Your task to perform on an android device: Clear the shopping cart on costco.com. Add jbl flip 4 to the cart on costco.com, then select checkout. Image 0: 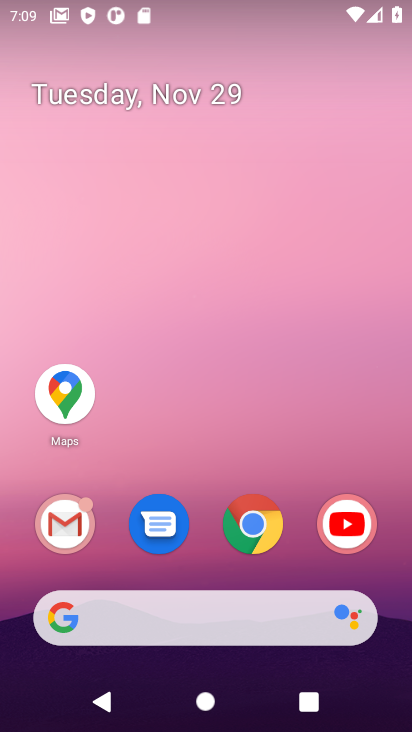
Step 0: click (252, 534)
Your task to perform on an android device: Clear the shopping cart on costco.com. Add jbl flip 4 to the cart on costco.com, then select checkout. Image 1: 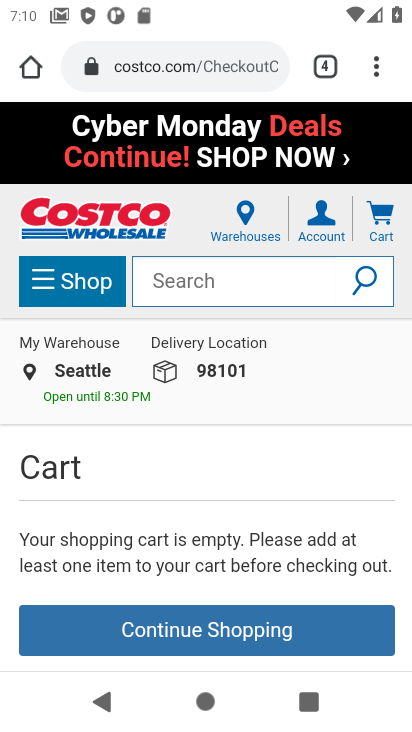
Step 1: click (185, 275)
Your task to perform on an android device: Clear the shopping cart on costco.com. Add jbl flip 4 to the cart on costco.com, then select checkout. Image 2: 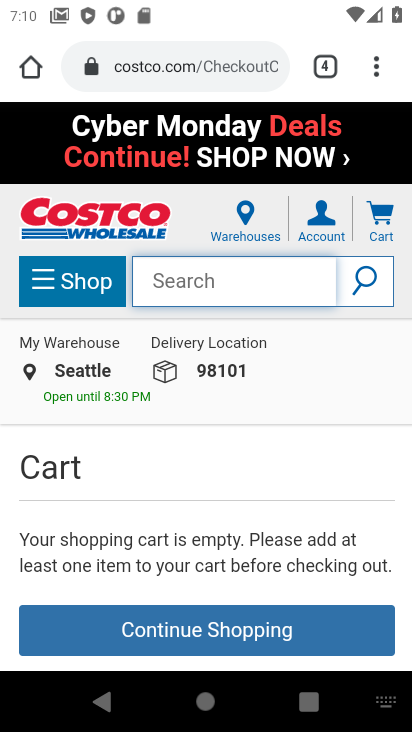
Step 2: type " jbl flip 4"
Your task to perform on an android device: Clear the shopping cart on costco.com. Add jbl flip 4 to the cart on costco.com, then select checkout. Image 3: 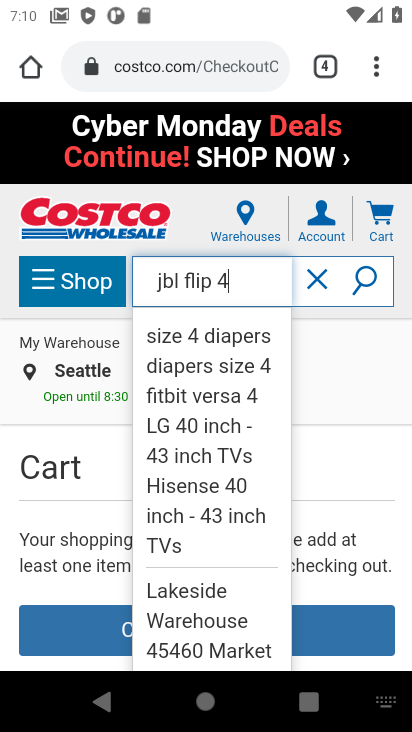
Step 3: click (358, 277)
Your task to perform on an android device: Clear the shopping cart on costco.com. Add jbl flip 4 to the cart on costco.com, then select checkout. Image 4: 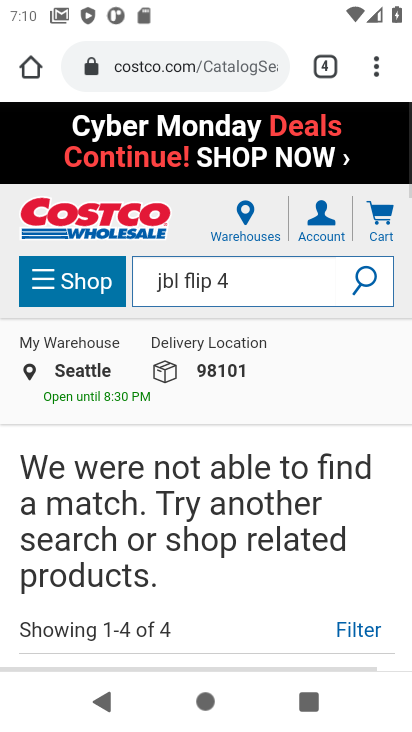
Step 4: task complete